Your task to perform on an android device: Search for seafood restaurants on Google Maps Image 0: 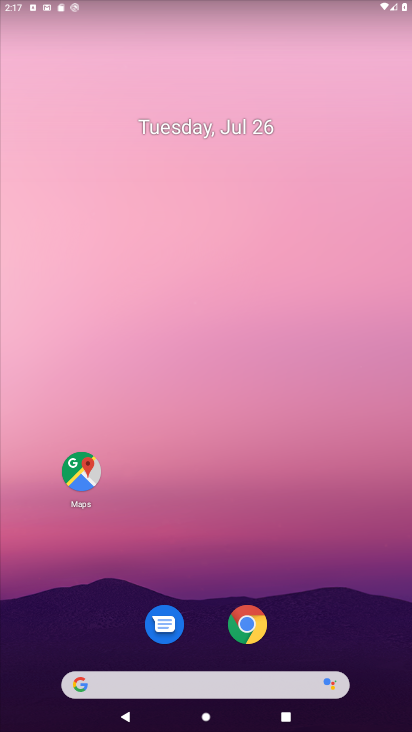
Step 0: drag from (183, 676) to (176, 228)
Your task to perform on an android device: Search for seafood restaurants on Google Maps Image 1: 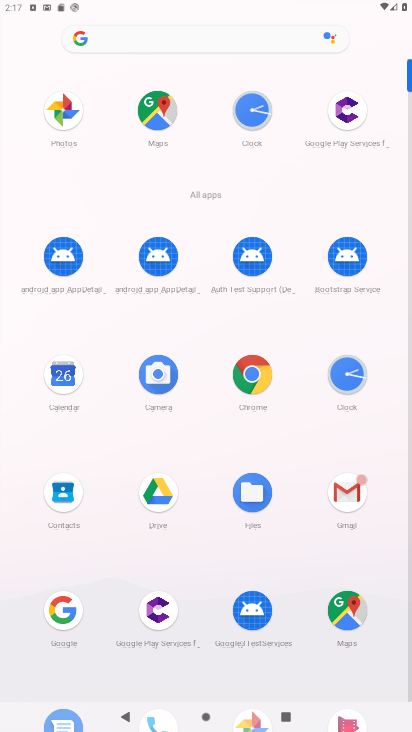
Step 1: click (154, 109)
Your task to perform on an android device: Search for seafood restaurants on Google Maps Image 2: 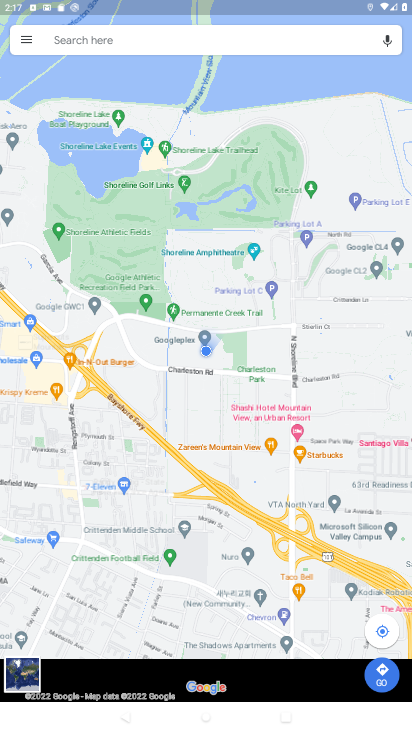
Step 2: click (111, 34)
Your task to perform on an android device: Search for seafood restaurants on Google Maps Image 3: 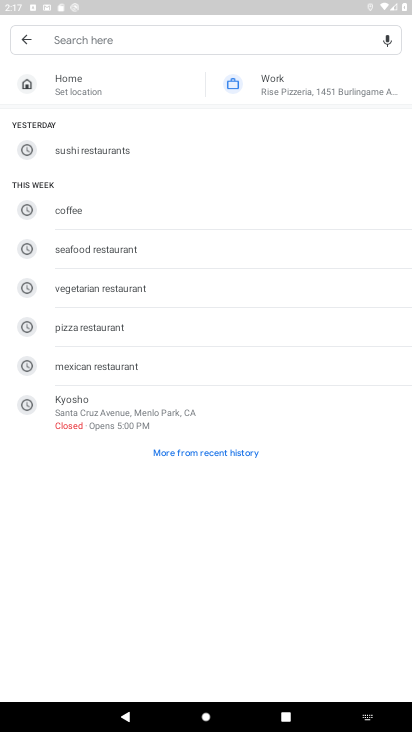
Step 3: click (87, 248)
Your task to perform on an android device: Search for seafood restaurants on Google Maps Image 4: 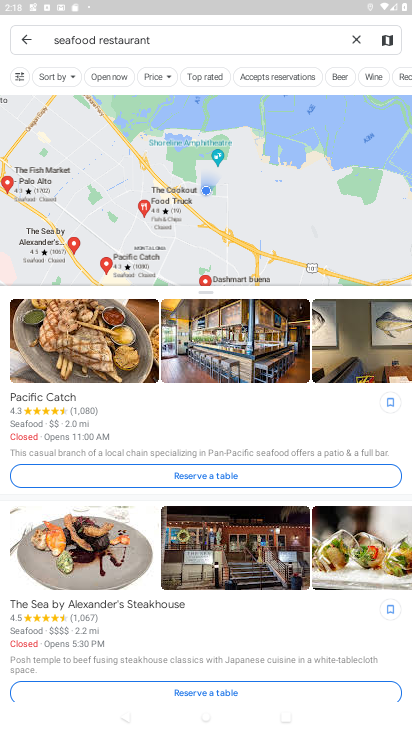
Step 4: task complete